Your task to perform on an android device: set an alarm Image 0: 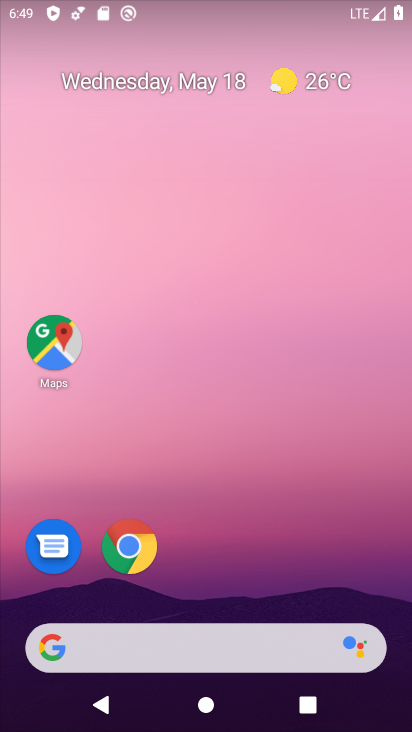
Step 0: drag from (396, 609) to (206, 38)
Your task to perform on an android device: set an alarm Image 1: 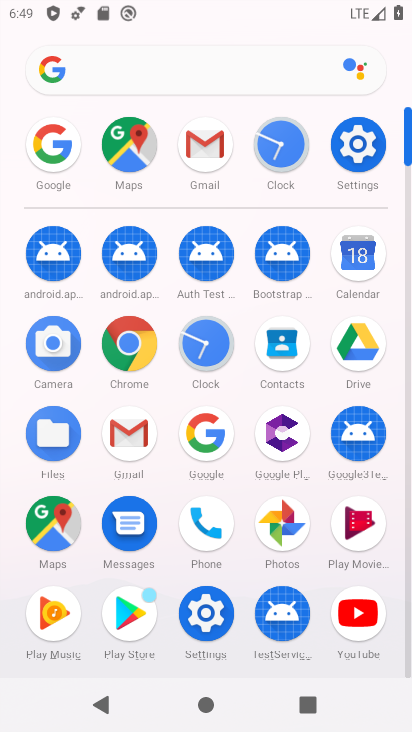
Step 1: click (287, 143)
Your task to perform on an android device: set an alarm Image 2: 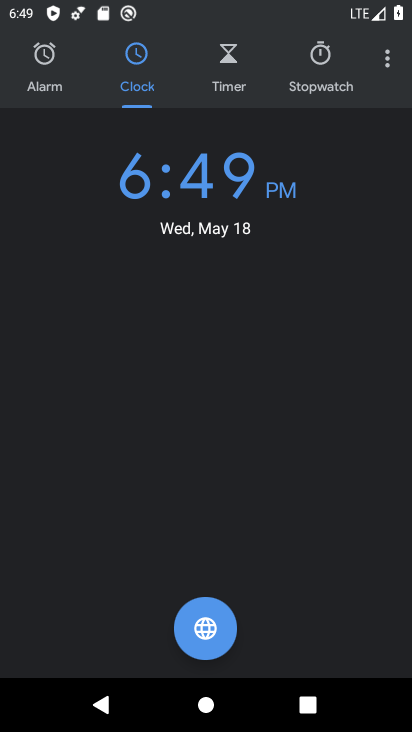
Step 2: click (52, 66)
Your task to perform on an android device: set an alarm Image 3: 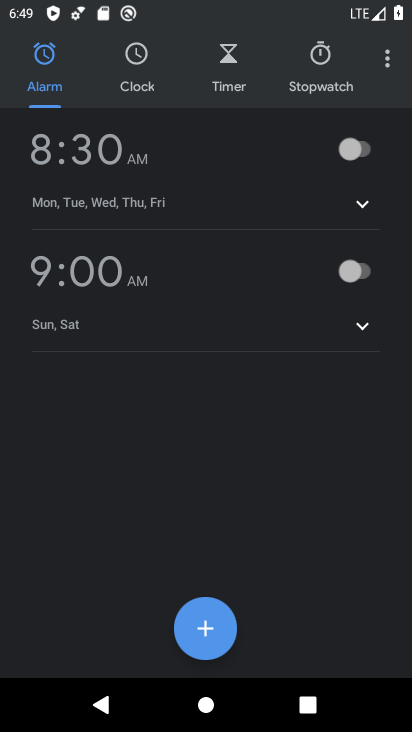
Step 3: click (360, 146)
Your task to perform on an android device: set an alarm Image 4: 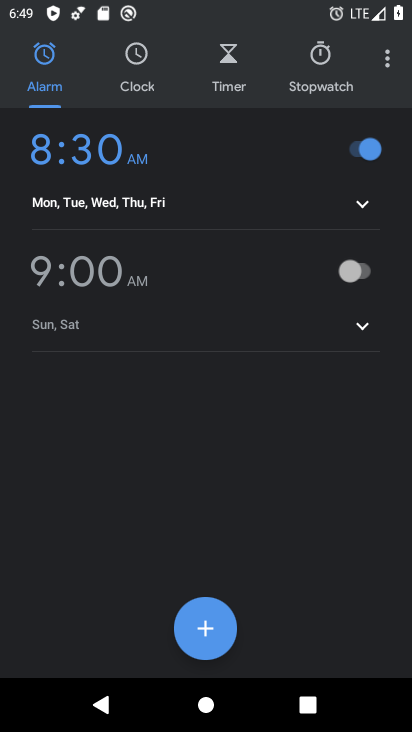
Step 4: task complete